Your task to perform on an android device: check storage Image 0: 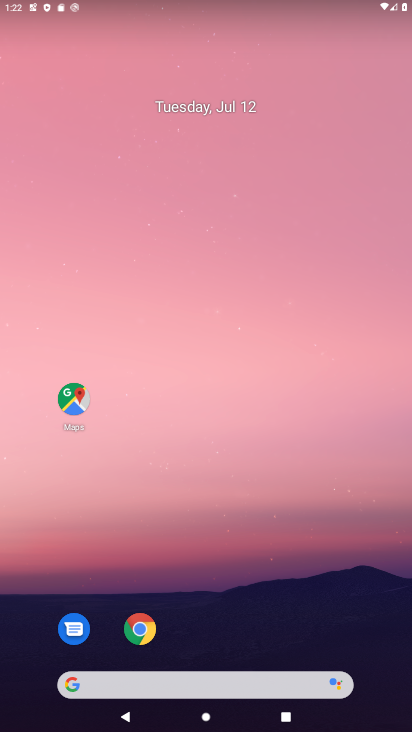
Step 0: drag from (210, 491) to (157, 194)
Your task to perform on an android device: check storage Image 1: 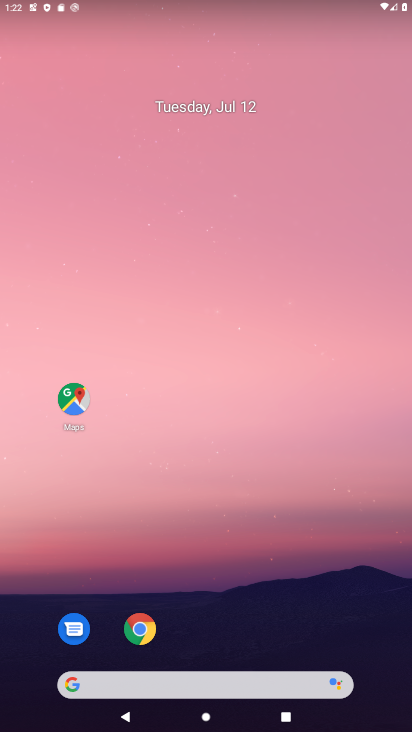
Step 1: drag from (245, 605) to (139, 36)
Your task to perform on an android device: check storage Image 2: 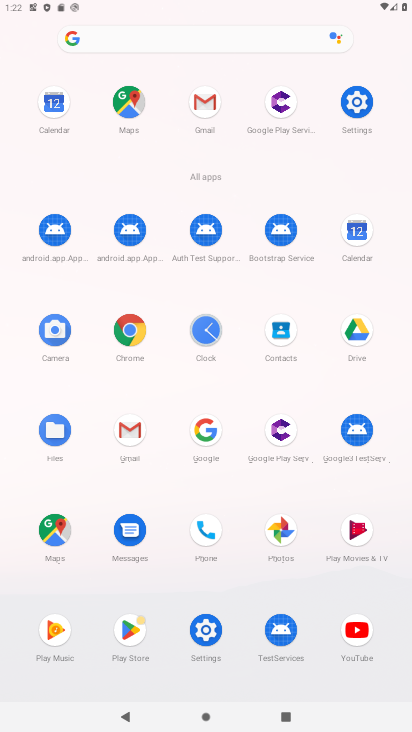
Step 2: click (351, 108)
Your task to perform on an android device: check storage Image 3: 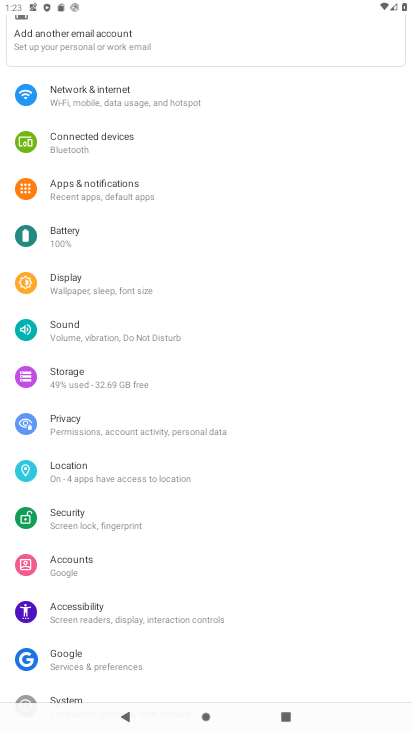
Step 3: click (106, 382)
Your task to perform on an android device: check storage Image 4: 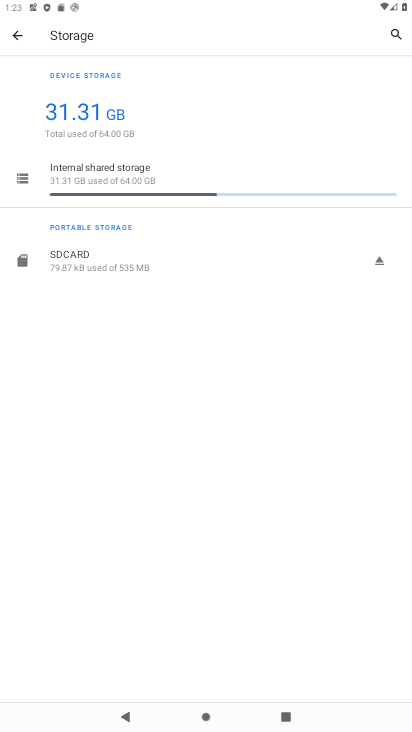
Step 4: task complete